Your task to perform on an android device: Open battery settings Image 0: 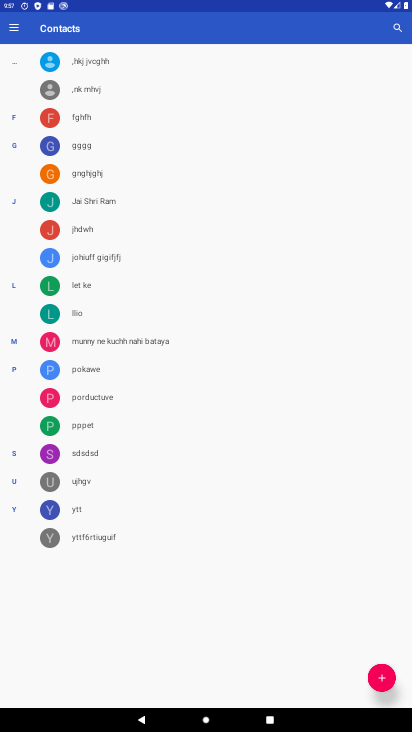
Step 0: press home button
Your task to perform on an android device: Open battery settings Image 1: 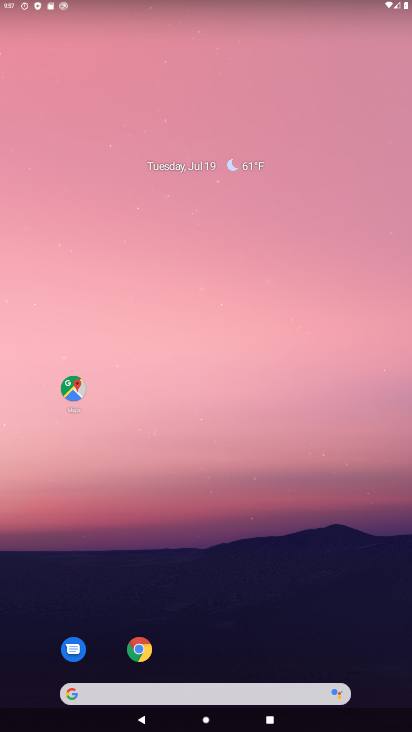
Step 1: drag from (228, 553) to (224, 259)
Your task to perform on an android device: Open battery settings Image 2: 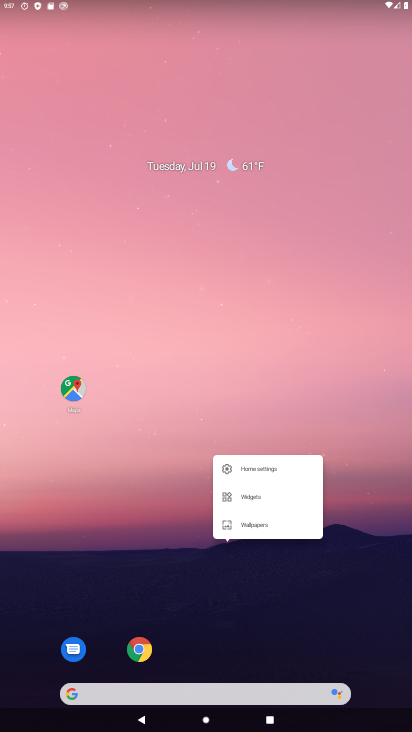
Step 2: click (296, 399)
Your task to perform on an android device: Open battery settings Image 3: 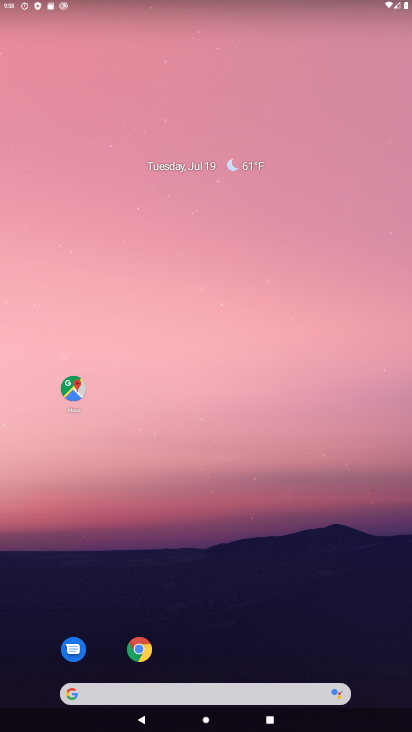
Step 3: drag from (268, 618) to (262, 239)
Your task to perform on an android device: Open battery settings Image 4: 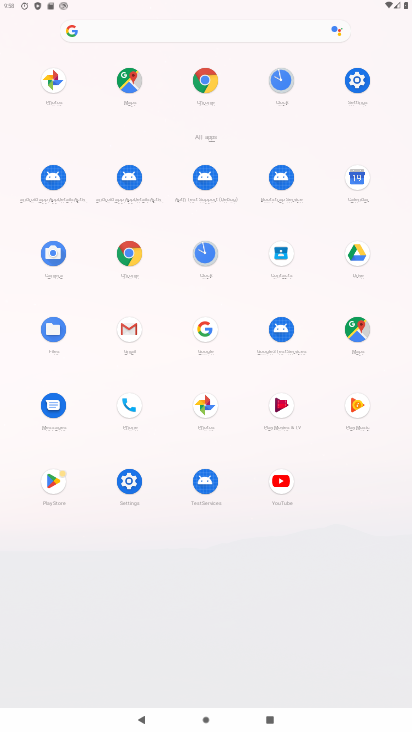
Step 4: click (363, 82)
Your task to perform on an android device: Open battery settings Image 5: 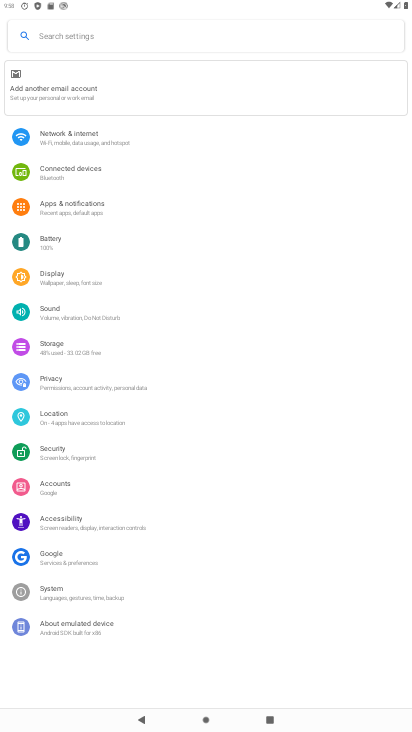
Step 5: click (55, 241)
Your task to perform on an android device: Open battery settings Image 6: 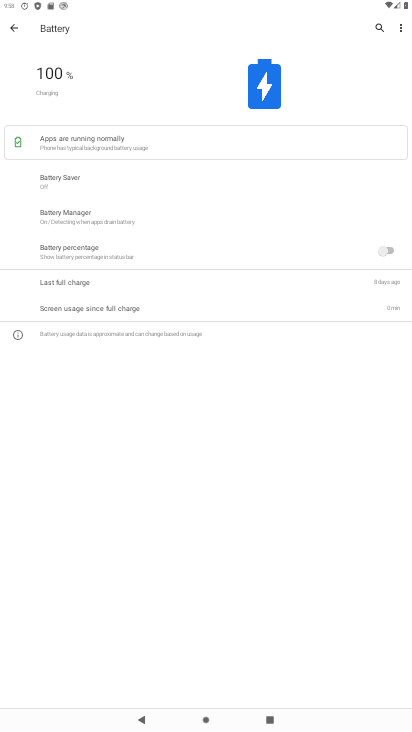
Step 6: task complete